Your task to perform on an android device: Open maps Image 0: 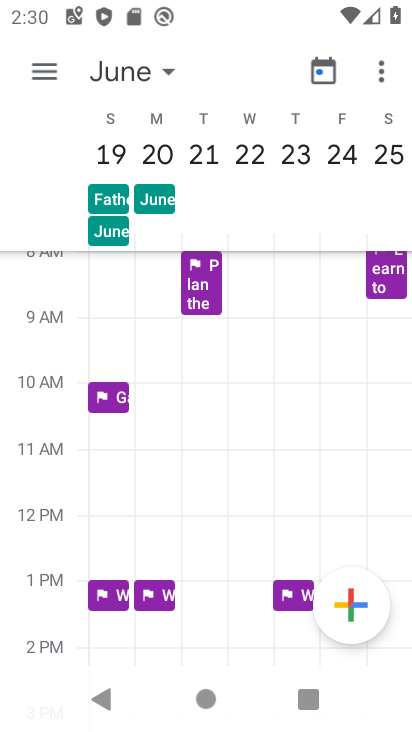
Step 0: press home button
Your task to perform on an android device: Open maps Image 1: 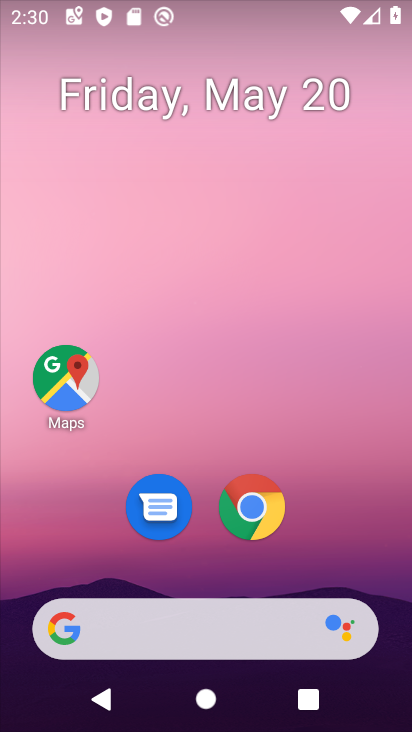
Step 1: drag from (227, 727) to (229, 121)
Your task to perform on an android device: Open maps Image 2: 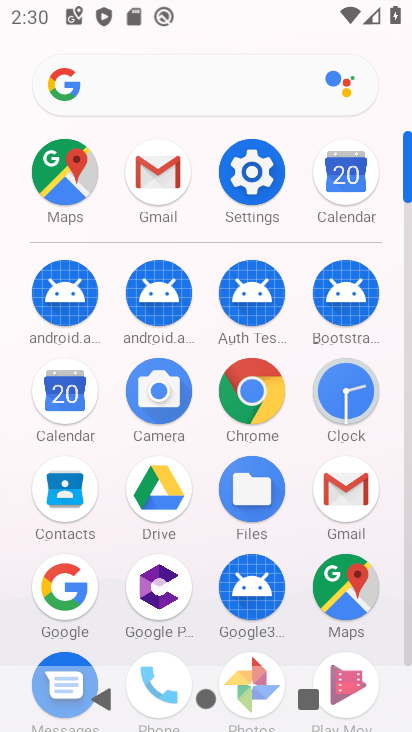
Step 2: click (346, 582)
Your task to perform on an android device: Open maps Image 3: 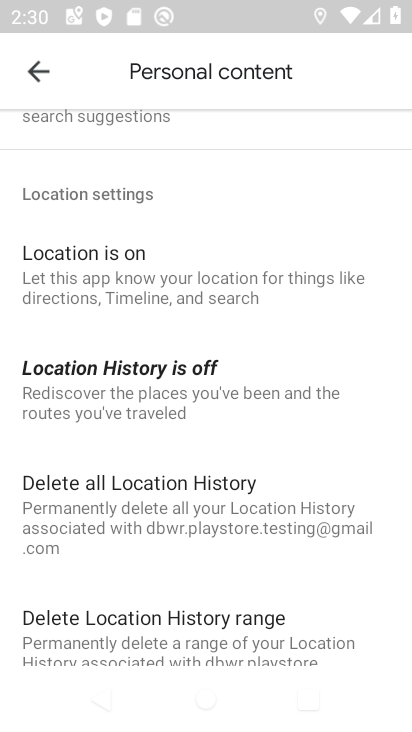
Step 3: click (36, 67)
Your task to perform on an android device: Open maps Image 4: 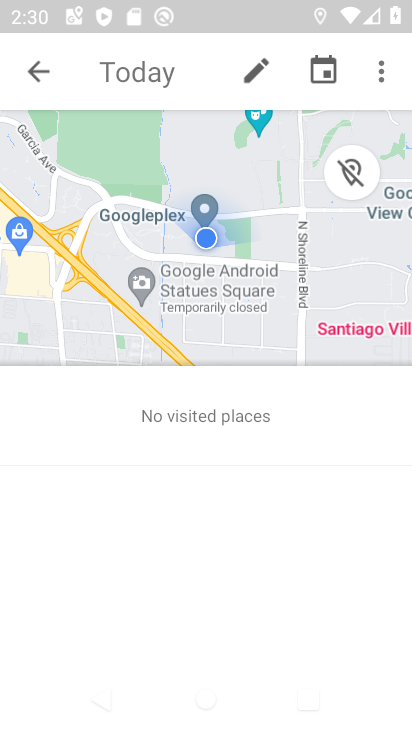
Step 4: task complete